Your task to perform on an android device: What's on my calendar today? Image 0: 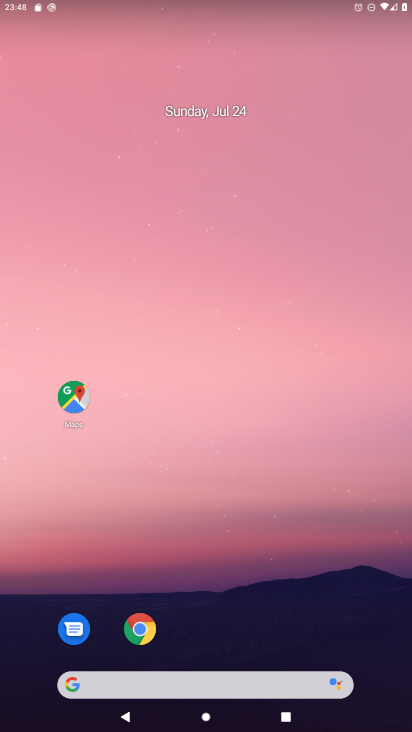
Step 0: drag from (192, 594) to (326, 71)
Your task to perform on an android device: What's on my calendar today? Image 1: 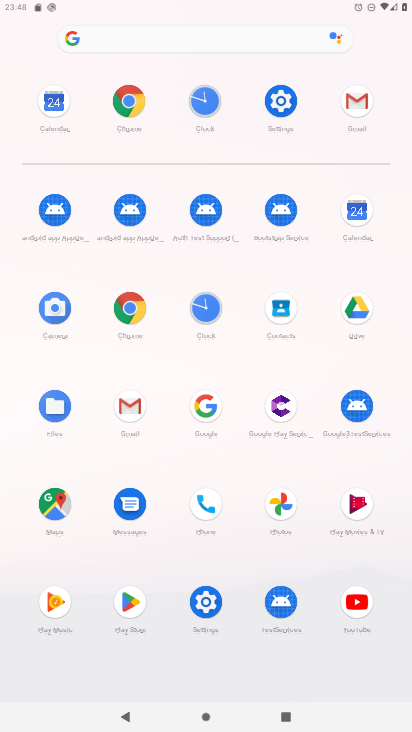
Step 1: click (357, 197)
Your task to perform on an android device: What's on my calendar today? Image 2: 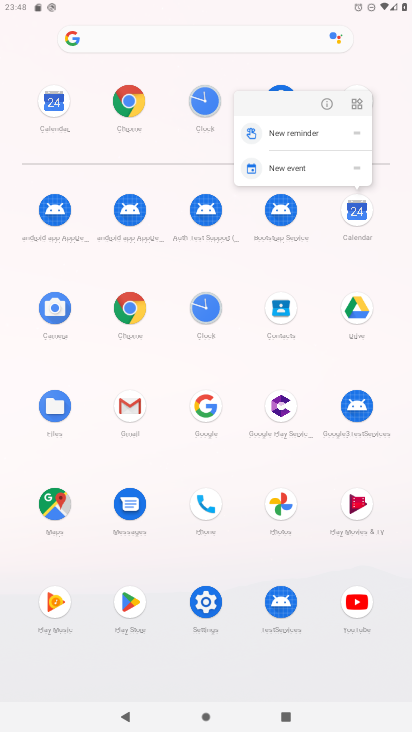
Step 2: click (317, 96)
Your task to perform on an android device: What's on my calendar today? Image 3: 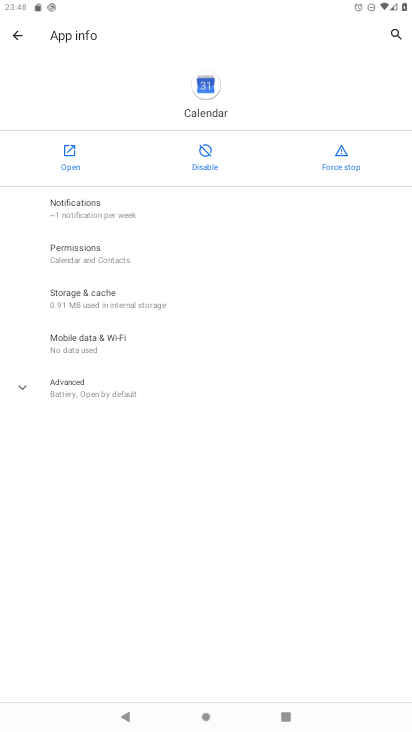
Step 3: click (69, 140)
Your task to perform on an android device: What's on my calendar today? Image 4: 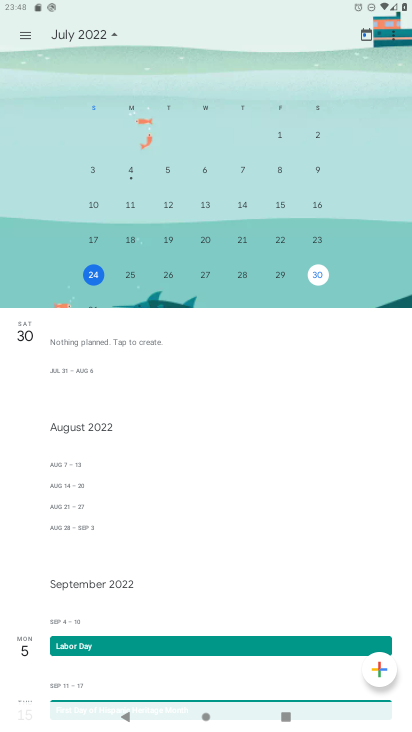
Step 4: click (356, 41)
Your task to perform on an android device: What's on my calendar today? Image 5: 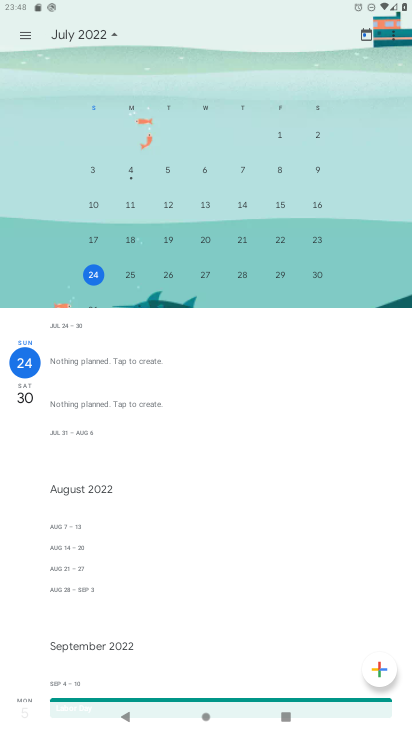
Step 5: click (367, 38)
Your task to perform on an android device: What's on my calendar today? Image 6: 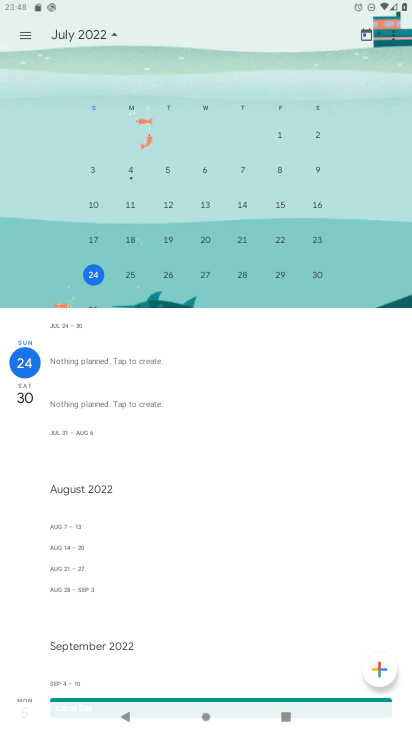
Step 6: click (93, 278)
Your task to perform on an android device: What's on my calendar today? Image 7: 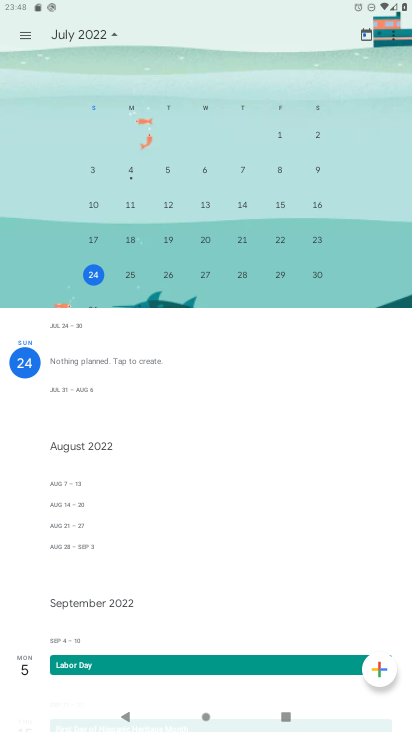
Step 7: task complete